Your task to perform on an android device: Open notification settings Image 0: 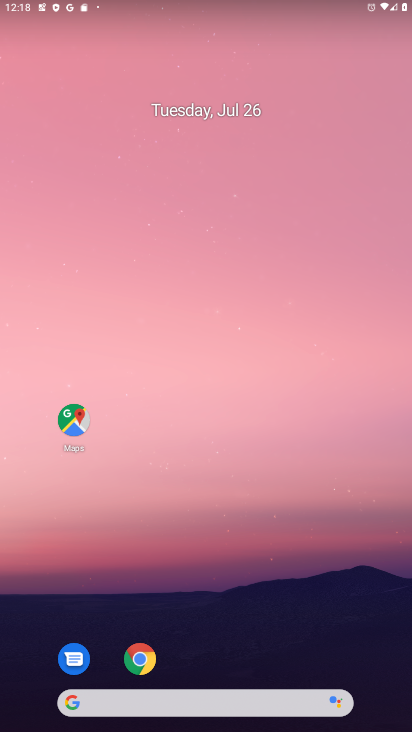
Step 0: drag from (268, 566) to (236, 139)
Your task to perform on an android device: Open notification settings Image 1: 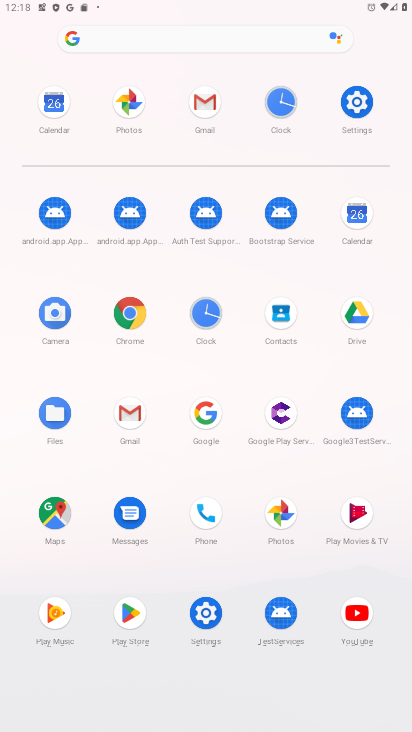
Step 1: click (353, 100)
Your task to perform on an android device: Open notification settings Image 2: 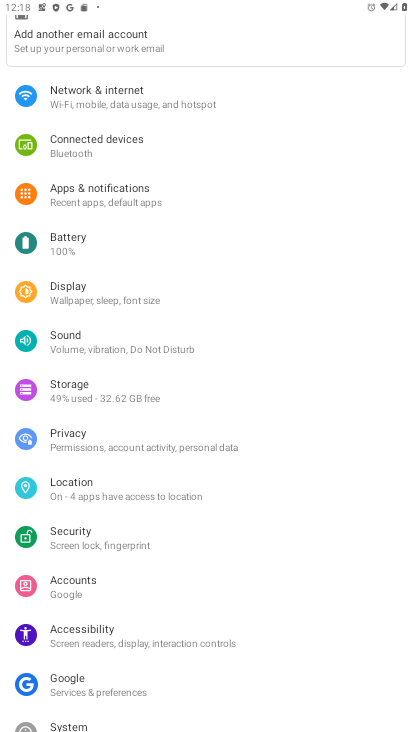
Step 2: click (106, 187)
Your task to perform on an android device: Open notification settings Image 3: 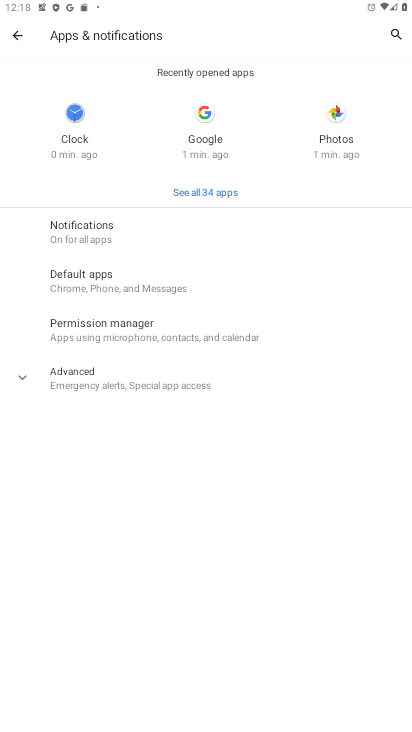
Step 3: task complete